Your task to perform on an android device: What's the weather today? Image 0: 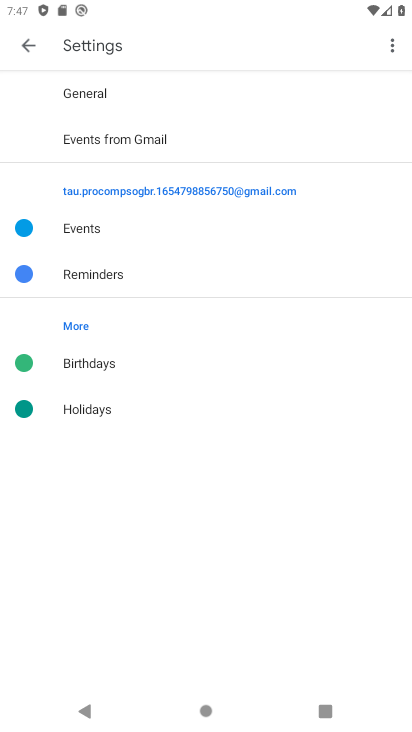
Step 0: task complete